Your task to perform on an android device: toggle notifications settings in the gmail app Image 0: 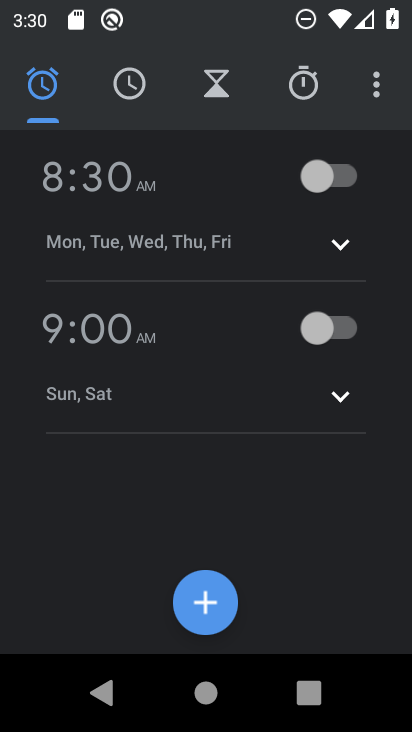
Step 0: press home button
Your task to perform on an android device: toggle notifications settings in the gmail app Image 1: 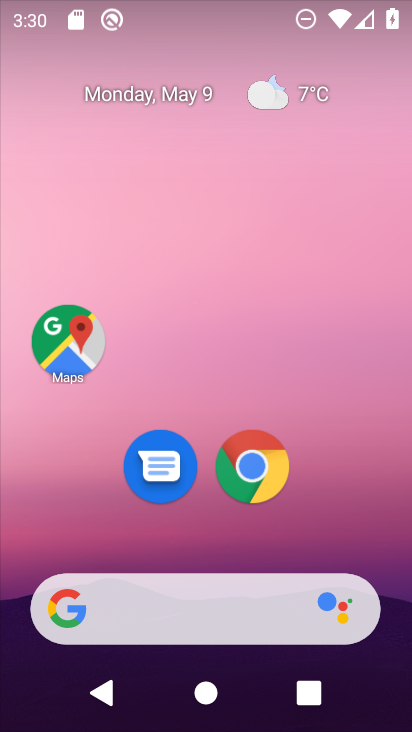
Step 1: drag from (19, 587) to (206, 131)
Your task to perform on an android device: toggle notifications settings in the gmail app Image 2: 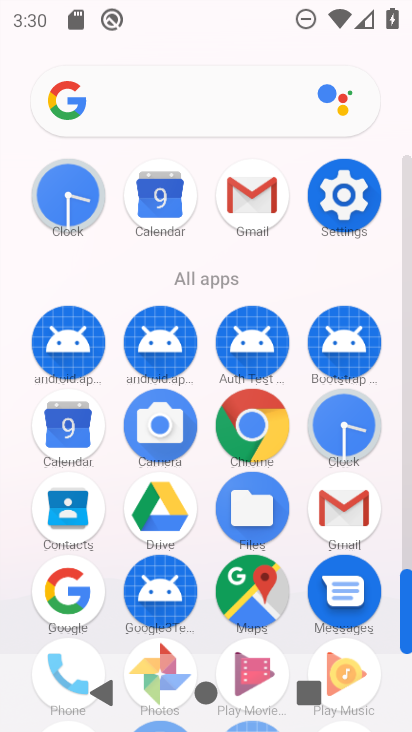
Step 2: click (246, 207)
Your task to perform on an android device: toggle notifications settings in the gmail app Image 3: 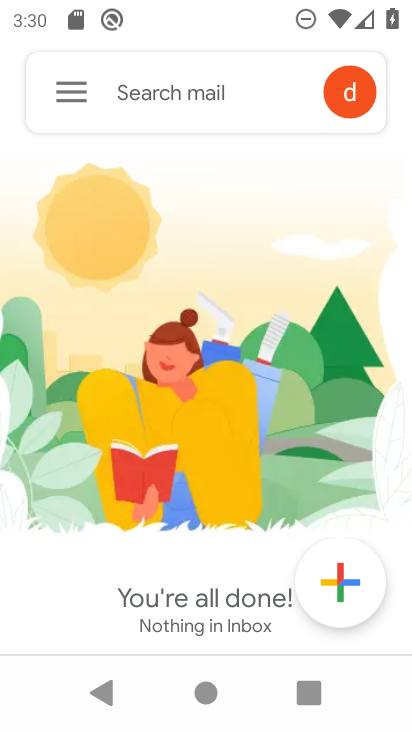
Step 3: click (70, 97)
Your task to perform on an android device: toggle notifications settings in the gmail app Image 4: 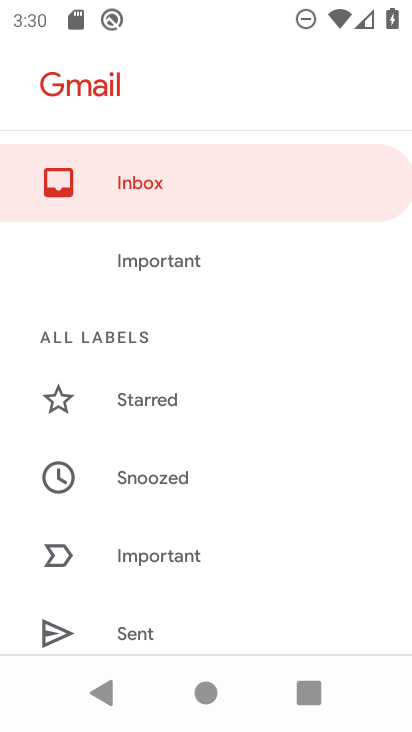
Step 4: drag from (141, 595) to (253, 159)
Your task to perform on an android device: toggle notifications settings in the gmail app Image 5: 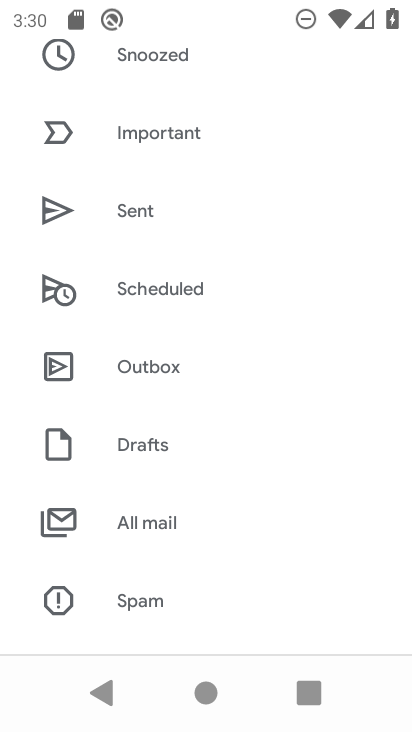
Step 5: drag from (130, 645) to (293, 217)
Your task to perform on an android device: toggle notifications settings in the gmail app Image 6: 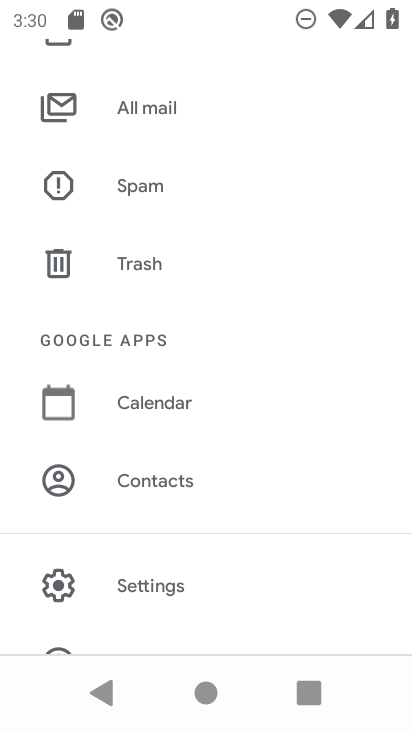
Step 6: click (107, 577)
Your task to perform on an android device: toggle notifications settings in the gmail app Image 7: 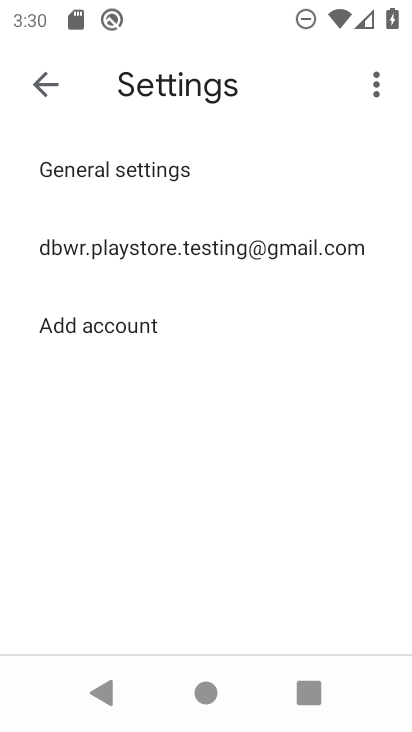
Step 7: click (173, 252)
Your task to perform on an android device: toggle notifications settings in the gmail app Image 8: 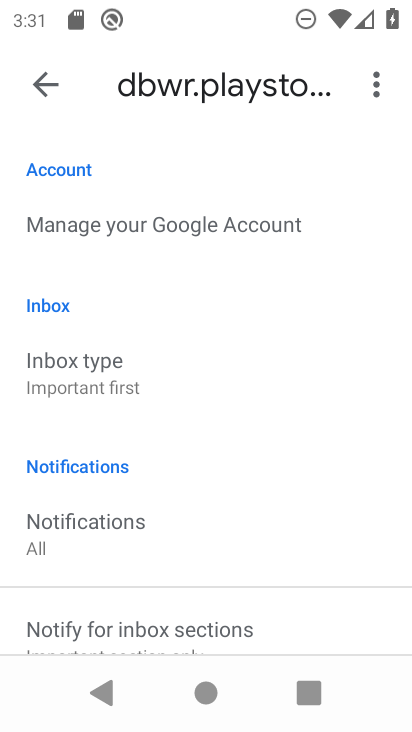
Step 8: click (159, 537)
Your task to perform on an android device: toggle notifications settings in the gmail app Image 9: 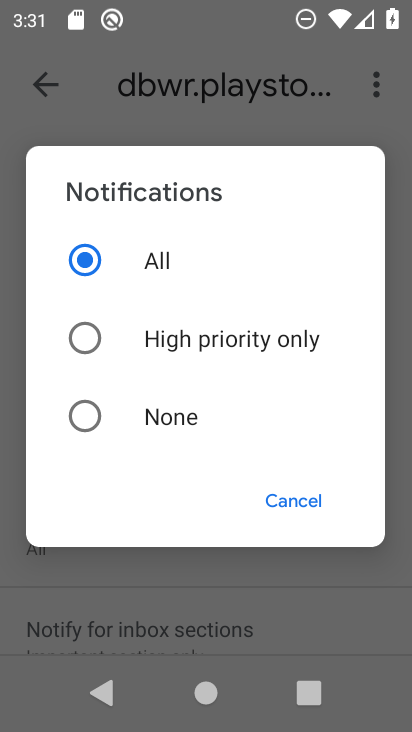
Step 9: press back button
Your task to perform on an android device: toggle notifications settings in the gmail app Image 10: 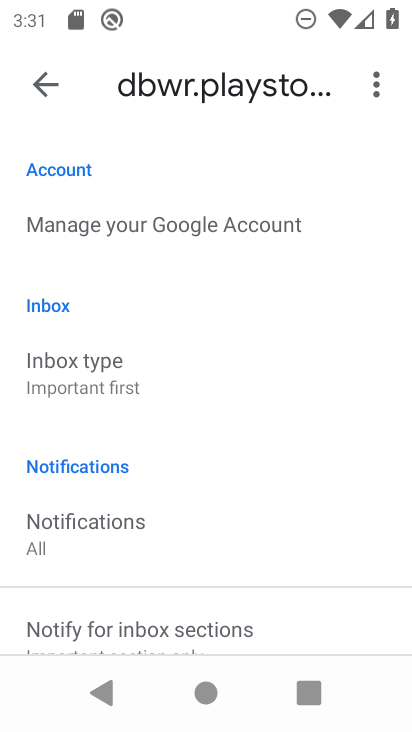
Step 10: drag from (191, 570) to (318, 221)
Your task to perform on an android device: toggle notifications settings in the gmail app Image 11: 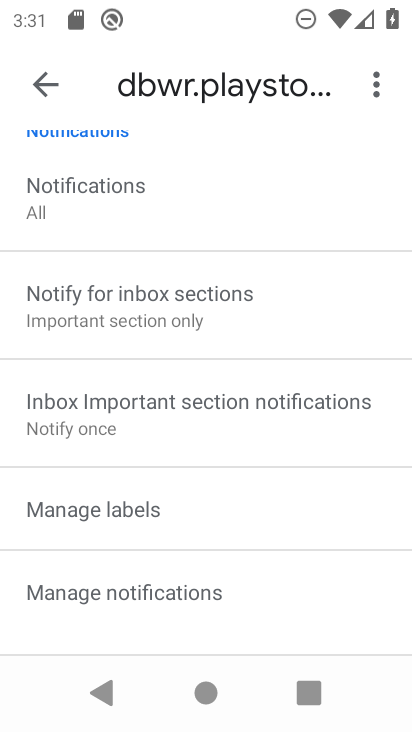
Step 11: click (210, 578)
Your task to perform on an android device: toggle notifications settings in the gmail app Image 12: 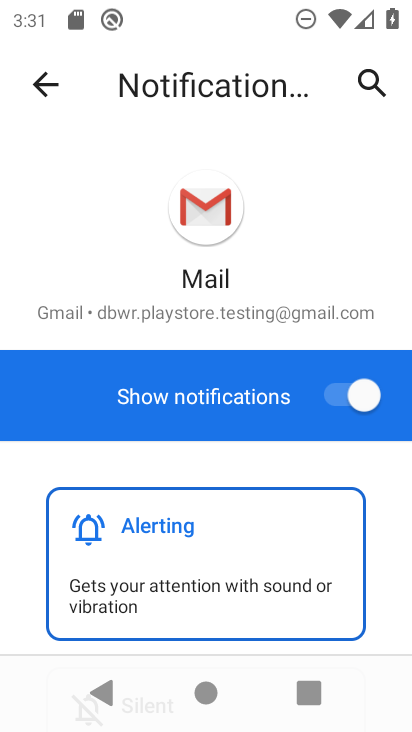
Step 12: click (380, 406)
Your task to perform on an android device: toggle notifications settings in the gmail app Image 13: 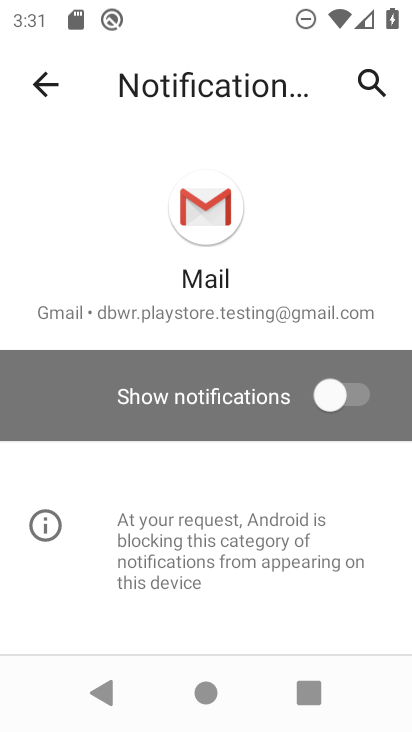
Step 13: task complete